Your task to perform on an android device: add a contact Image 0: 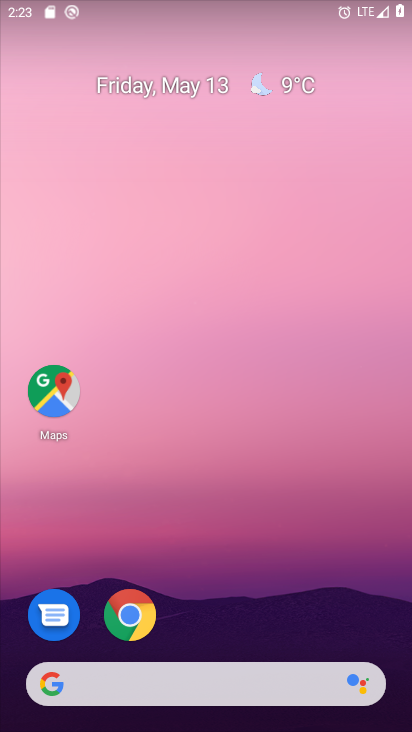
Step 0: drag from (248, 558) to (278, 57)
Your task to perform on an android device: add a contact Image 1: 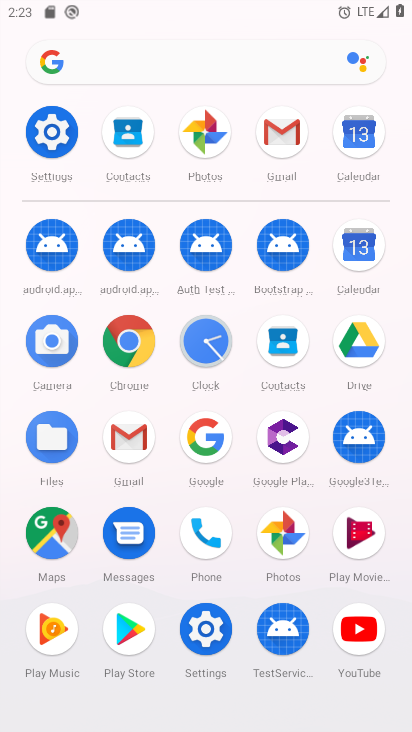
Step 1: click (280, 350)
Your task to perform on an android device: add a contact Image 2: 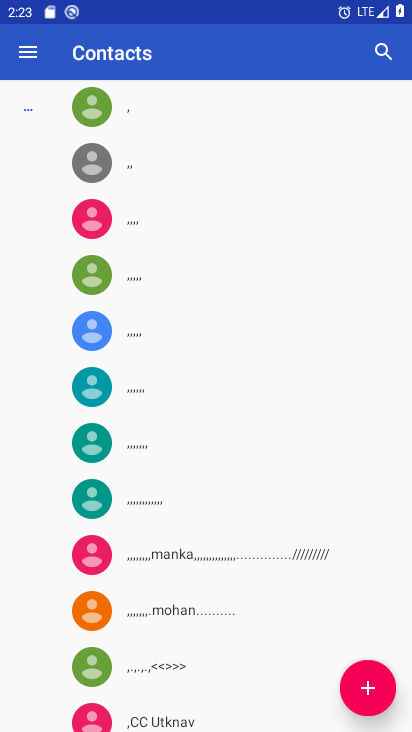
Step 2: click (374, 672)
Your task to perform on an android device: add a contact Image 3: 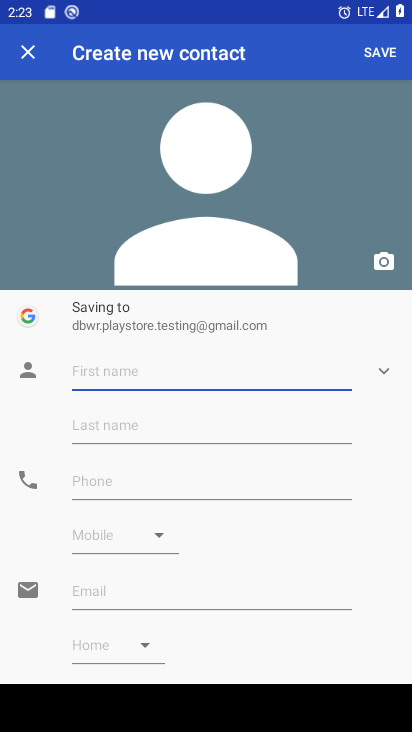
Step 3: type "Brijnandandas"
Your task to perform on an android device: add a contact Image 4: 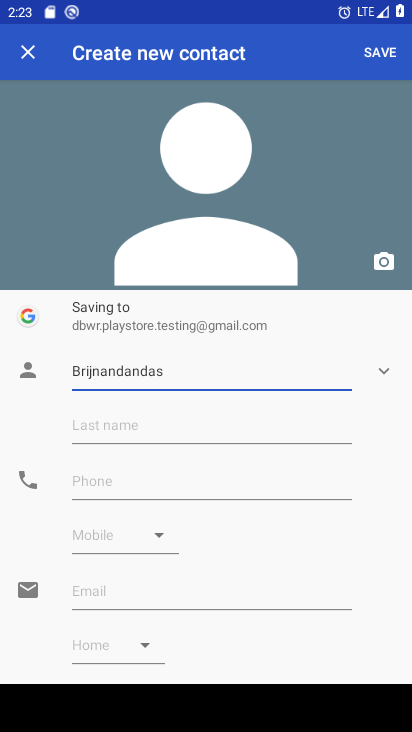
Step 4: click (209, 477)
Your task to perform on an android device: add a contact Image 5: 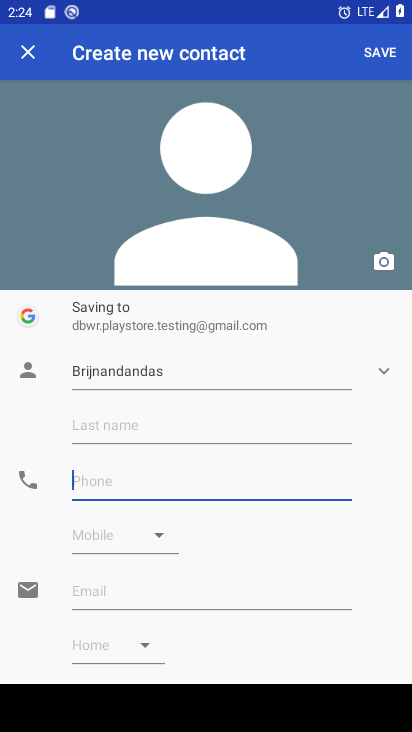
Step 5: type "01133557799"
Your task to perform on an android device: add a contact Image 6: 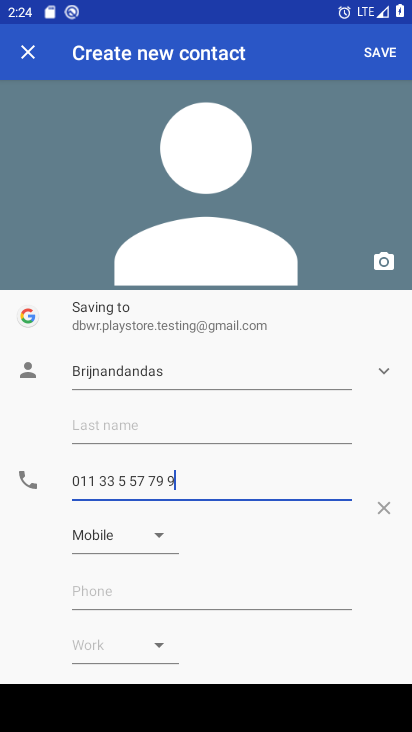
Step 6: click (386, 47)
Your task to perform on an android device: add a contact Image 7: 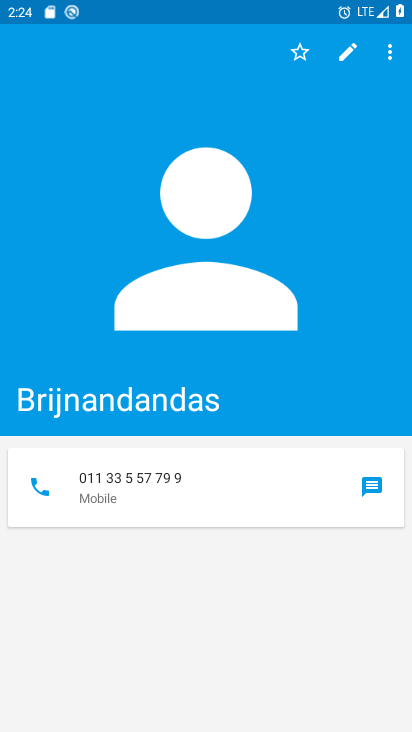
Step 7: task complete